Your task to perform on an android device: What's the weather going to be tomorrow? Image 0: 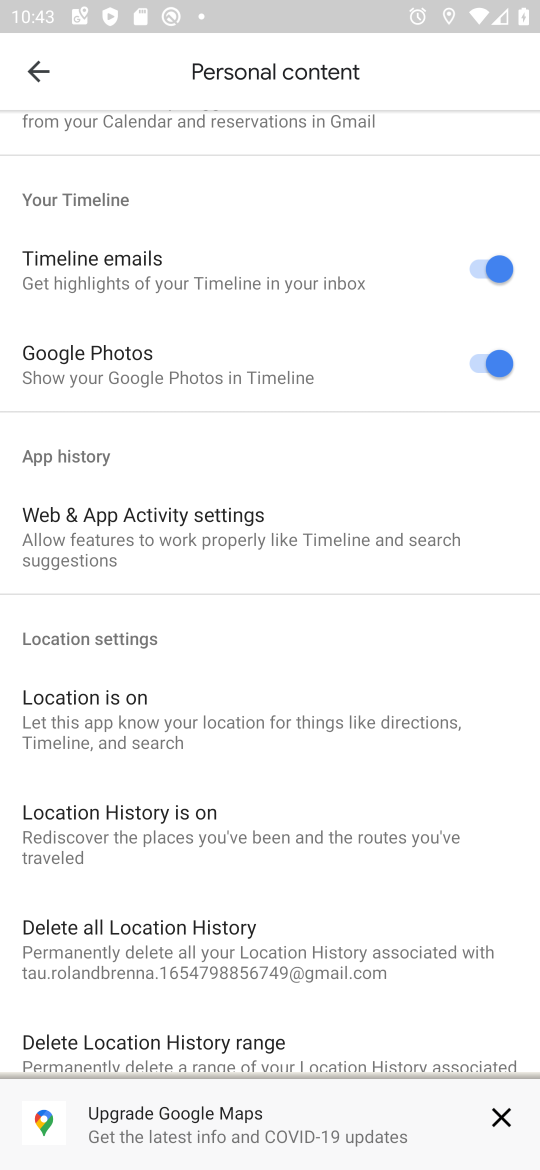
Step 0: press home button
Your task to perform on an android device: What's the weather going to be tomorrow? Image 1: 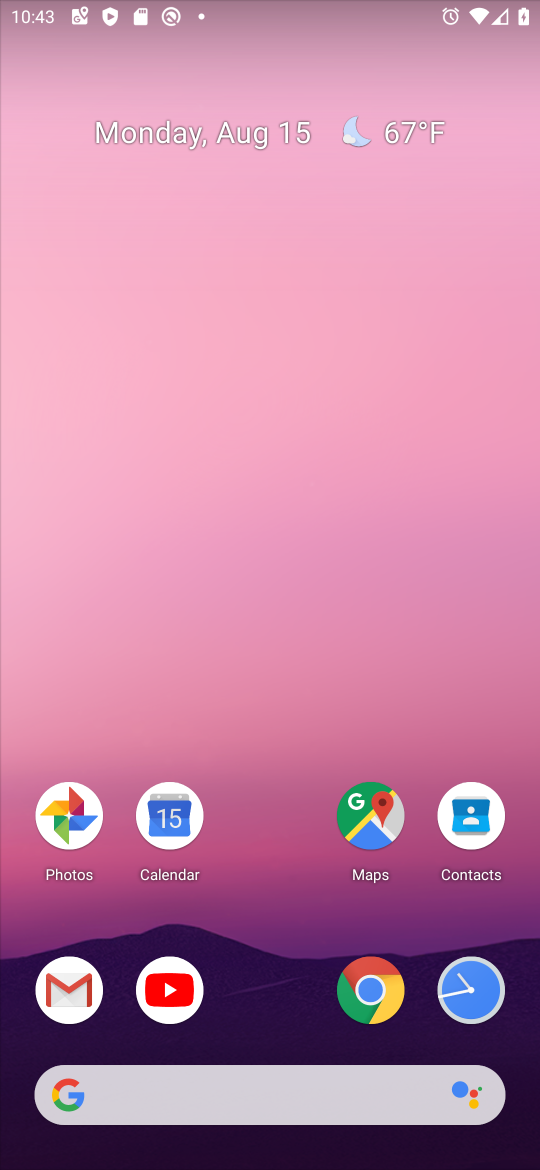
Step 1: click (294, 1095)
Your task to perform on an android device: What's the weather going to be tomorrow? Image 2: 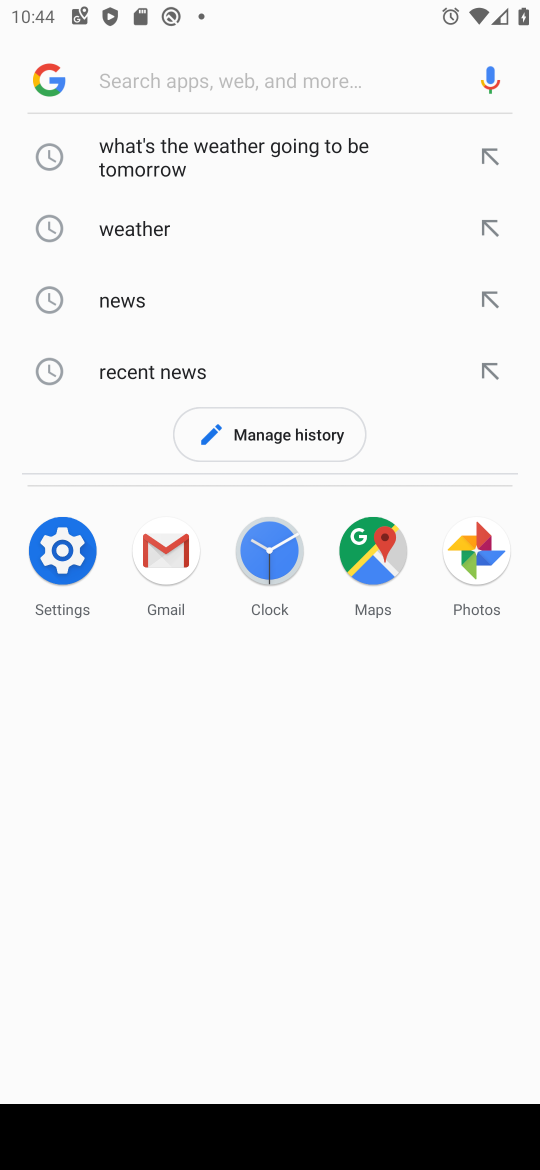
Step 2: click (129, 146)
Your task to perform on an android device: What's the weather going to be tomorrow? Image 3: 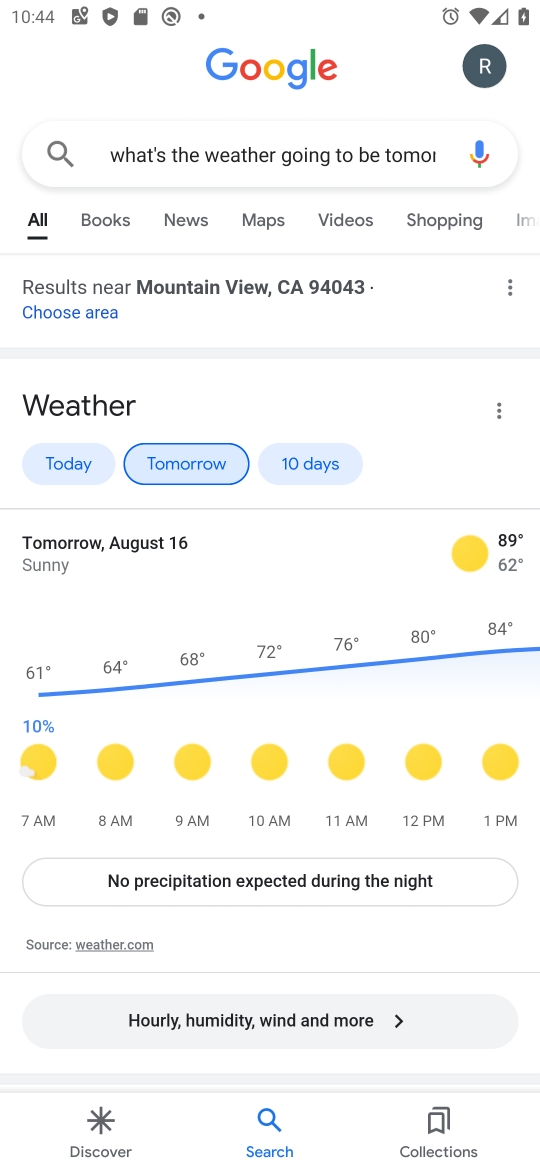
Step 3: task complete